Your task to perform on an android device: Is it going to rain this weekend? Image 0: 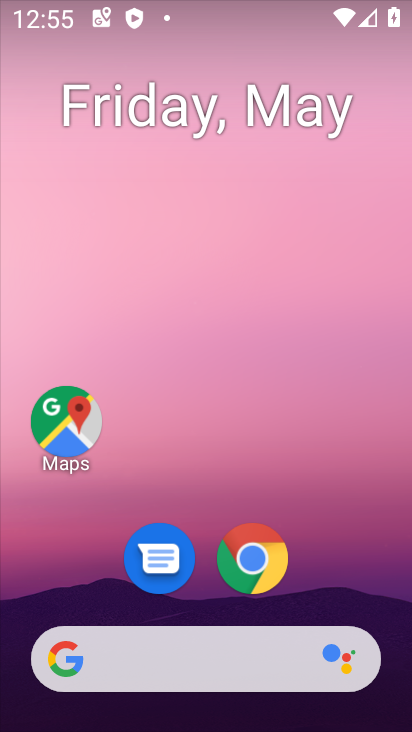
Step 0: drag from (370, 545) to (313, 161)
Your task to perform on an android device: Is it going to rain this weekend? Image 1: 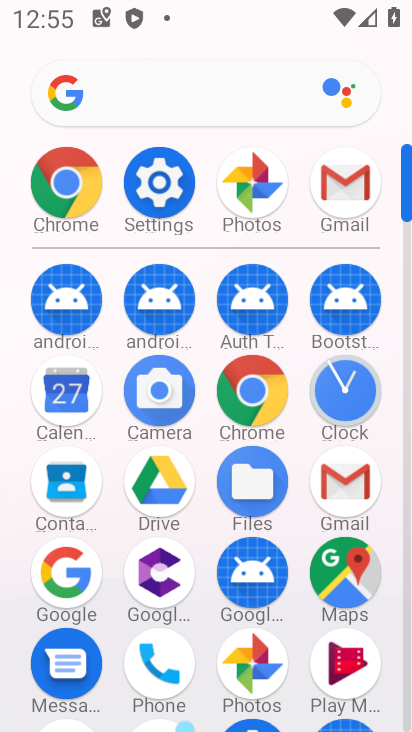
Step 1: click (70, 199)
Your task to perform on an android device: Is it going to rain this weekend? Image 2: 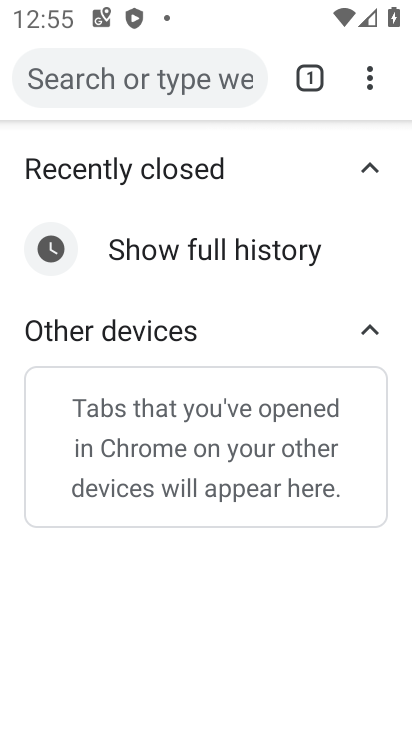
Step 2: click (172, 92)
Your task to perform on an android device: Is it going to rain this weekend? Image 3: 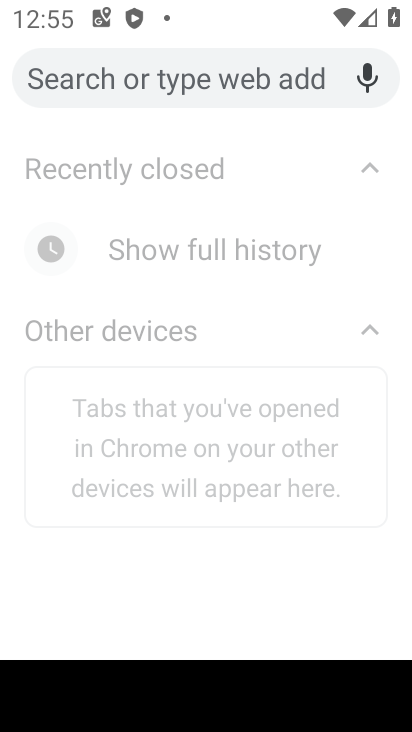
Step 3: type "Is it going to rain this weekend?"
Your task to perform on an android device: Is it going to rain this weekend? Image 4: 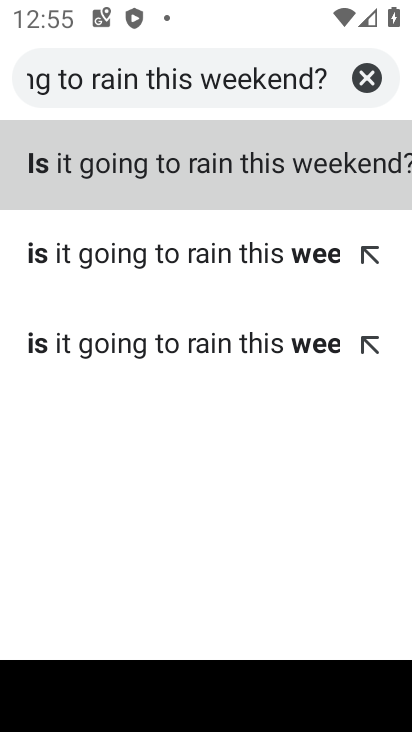
Step 4: click (276, 174)
Your task to perform on an android device: Is it going to rain this weekend? Image 5: 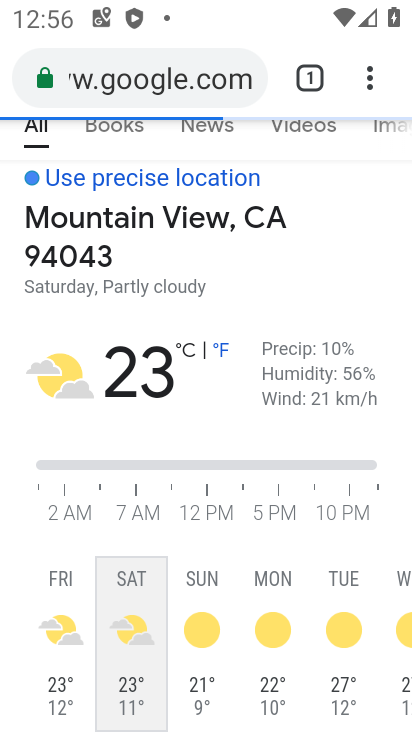
Step 5: task complete